Your task to perform on an android device: change the upload size in google photos Image 0: 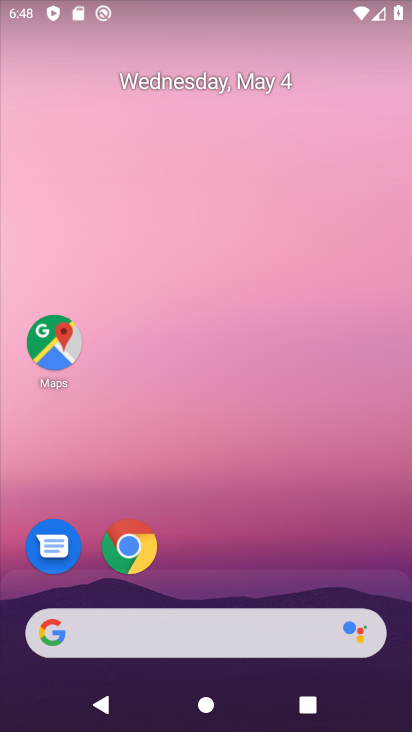
Step 0: drag from (326, 520) to (300, 171)
Your task to perform on an android device: change the upload size in google photos Image 1: 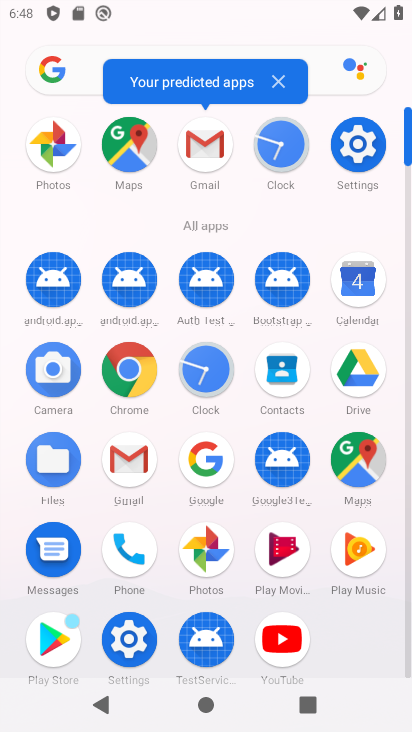
Step 1: click (217, 556)
Your task to perform on an android device: change the upload size in google photos Image 2: 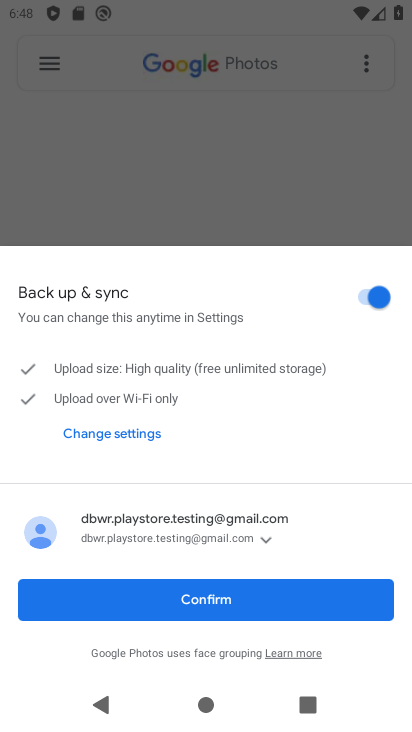
Step 2: click (171, 606)
Your task to perform on an android device: change the upload size in google photos Image 3: 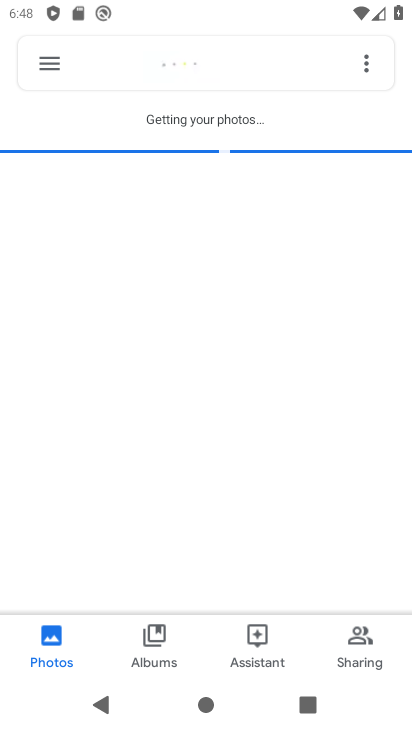
Step 3: click (46, 63)
Your task to perform on an android device: change the upload size in google photos Image 4: 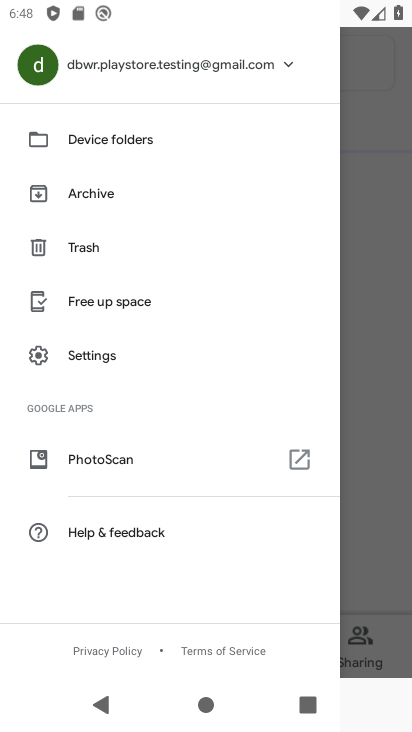
Step 4: click (96, 366)
Your task to perform on an android device: change the upload size in google photos Image 5: 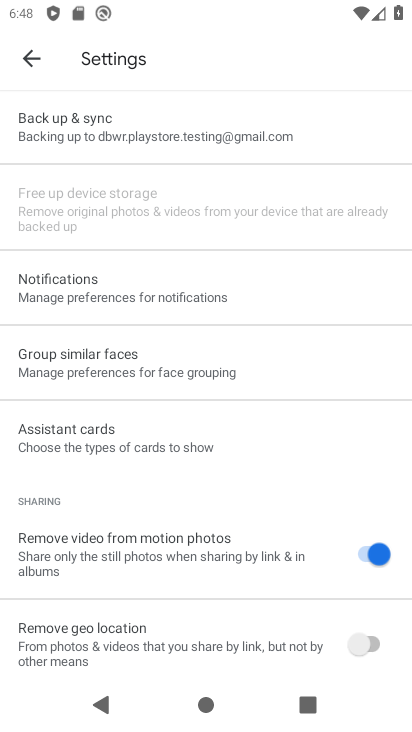
Step 5: click (73, 145)
Your task to perform on an android device: change the upload size in google photos Image 6: 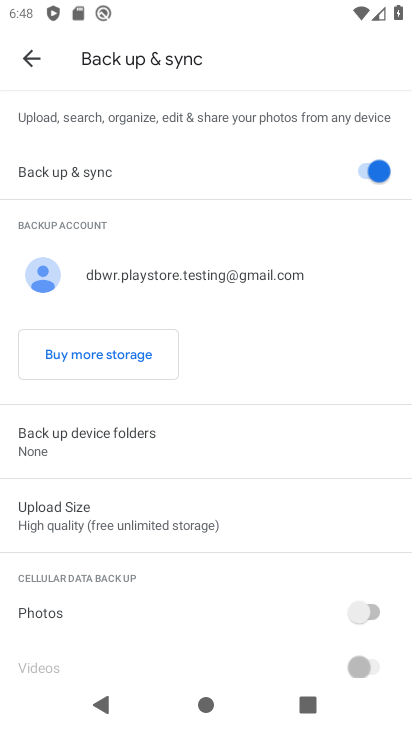
Step 6: click (178, 512)
Your task to perform on an android device: change the upload size in google photos Image 7: 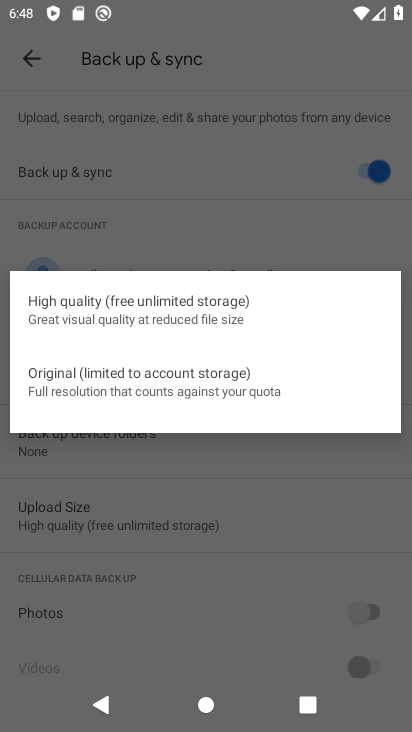
Step 7: click (140, 387)
Your task to perform on an android device: change the upload size in google photos Image 8: 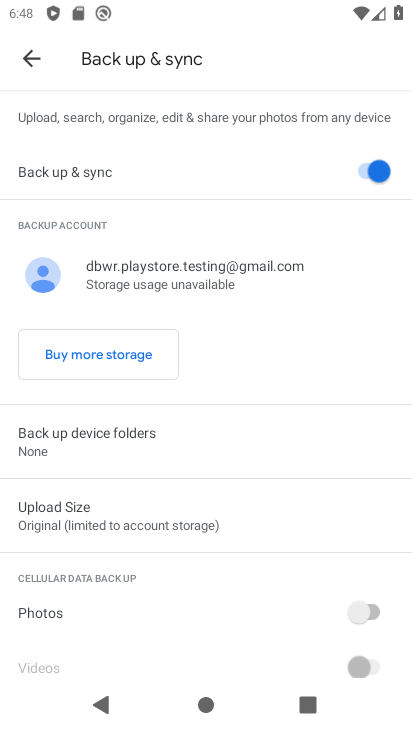
Step 8: task complete